Your task to perform on an android device: Open Google Maps and go to "Timeline" Image 0: 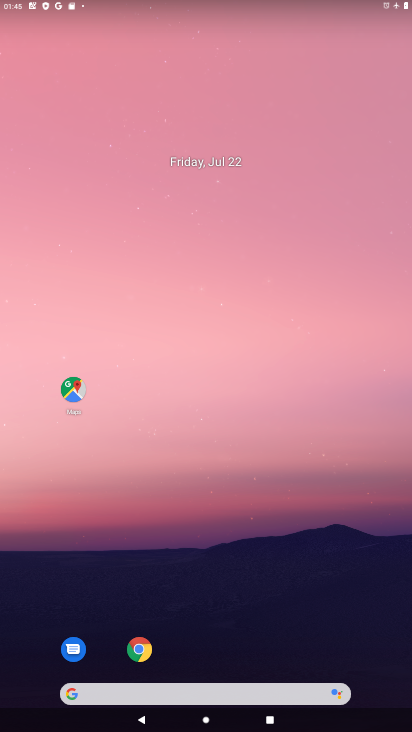
Step 0: drag from (291, 669) to (225, 90)
Your task to perform on an android device: Open Google Maps and go to "Timeline" Image 1: 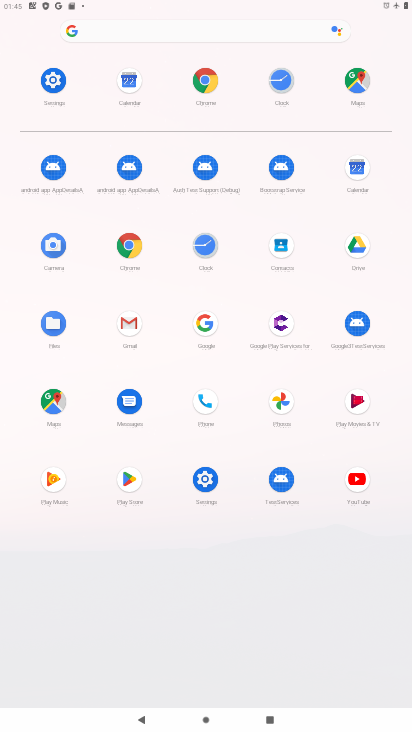
Step 1: click (54, 405)
Your task to perform on an android device: Open Google Maps and go to "Timeline" Image 2: 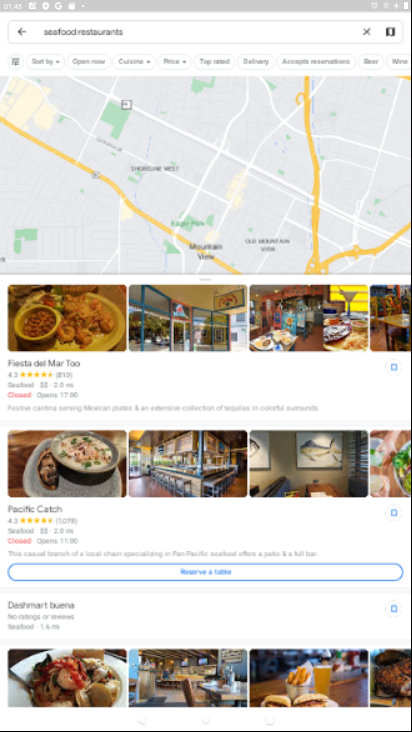
Step 2: click (27, 33)
Your task to perform on an android device: Open Google Maps and go to "Timeline" Image 3: 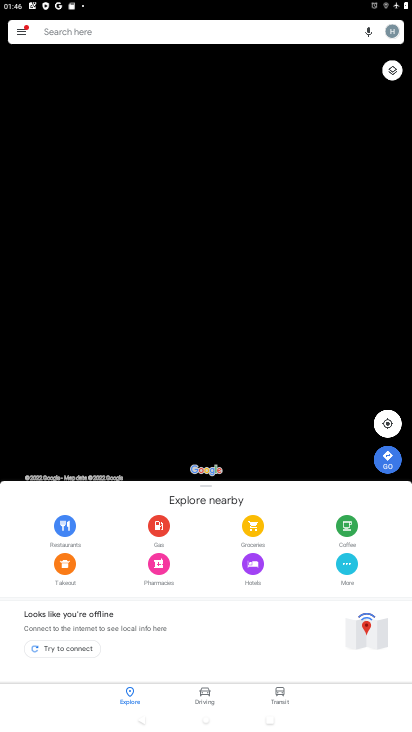
Step 3: click (20, 25)
Your task to perform on an android device: Open Google Maps and go to "Timeline" Image 4: 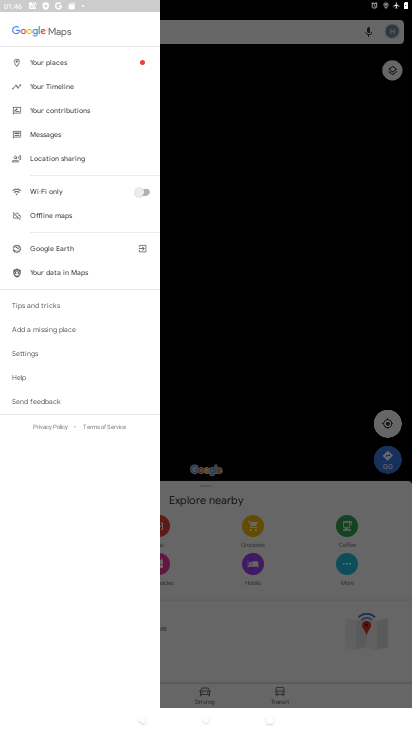
Step 4: click (59, 89)
Your task to perform on an android device: Open Google Maps and go to "Timeline" Image 5: 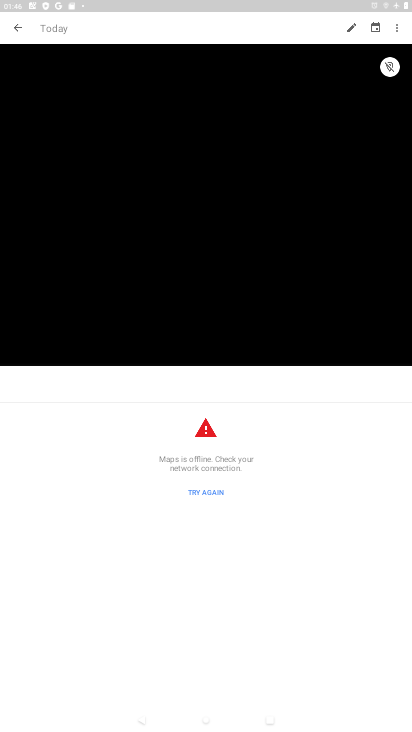
Step 5: task complete